Your task to perform on an android device: Search for Italian restaurants on Maps Image 0: 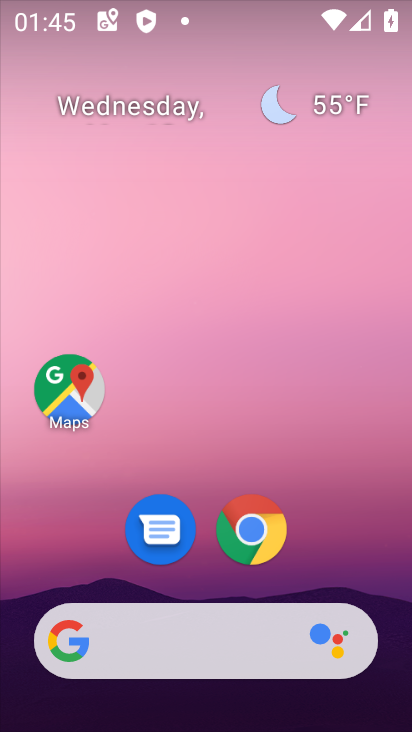
Step 0: drag from (237, 725) to (253, 272)
Your task to perform on an android device: Search for Italian restaurants on Maps Image 1: 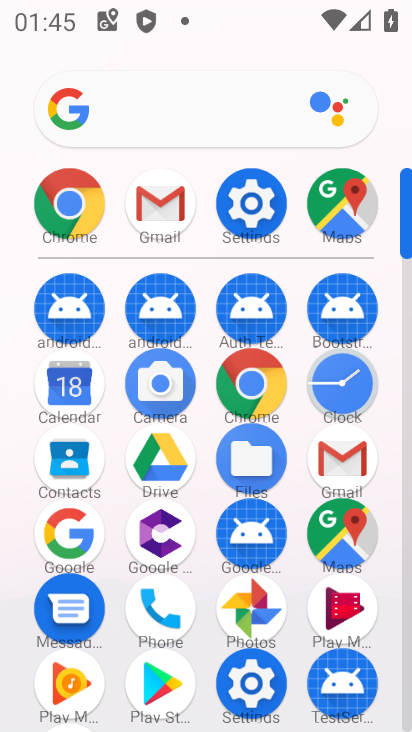
Step 1: click (343, 535)
Your task to perform on an android device: Search for Italian restaurants on Maps Image 2: 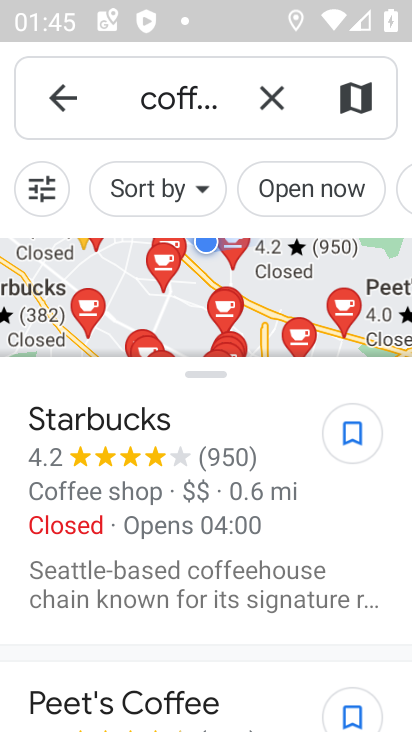
Step 2: click (271, 106)
Your task to perform on an android device: Search for Italian restaurants on Maps Image 3: 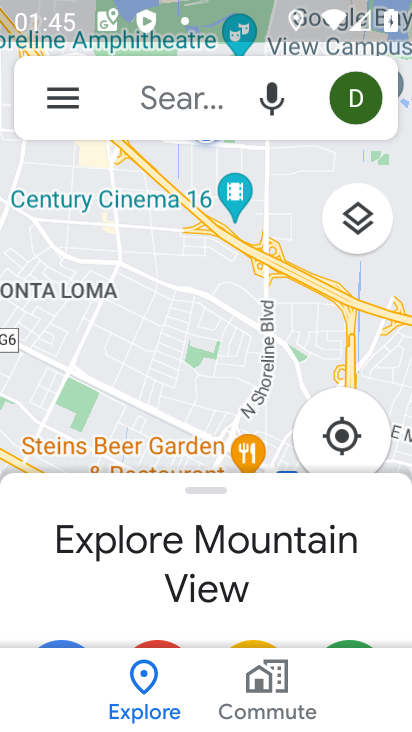
Step 3: type "italian restaurants"
Your task to perform on an android device: Search for Italian restaurants on Maps Image 4: 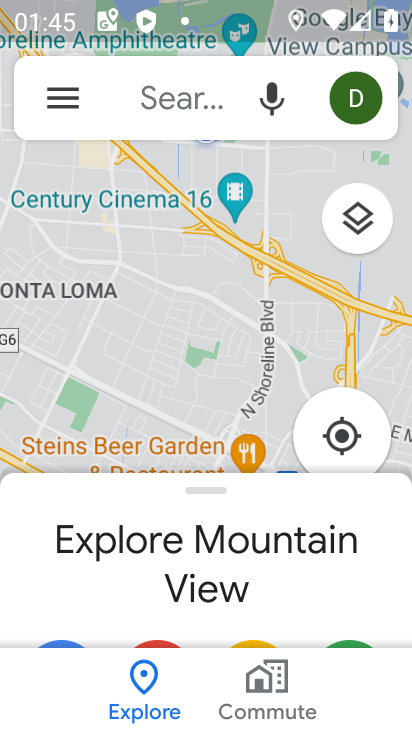
Step 4: click (155, 89)
Your task to perform on an android device: Search for Italian restaurants on Maps Image 5: 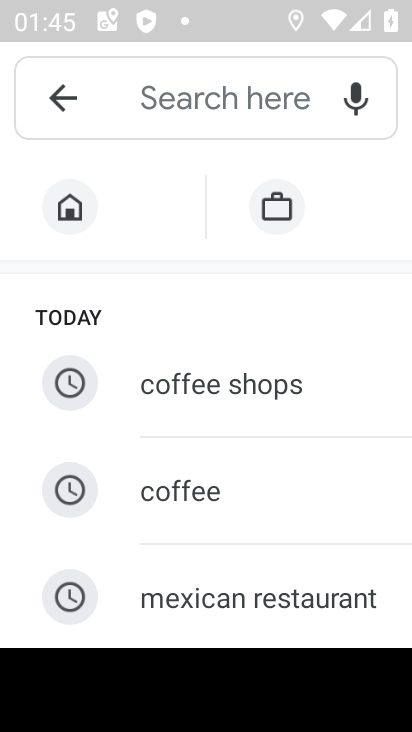
Step 5: type "italian restaurants"
Your task to perform on an android device: Search for Italian restaurants on Maps Image 6: 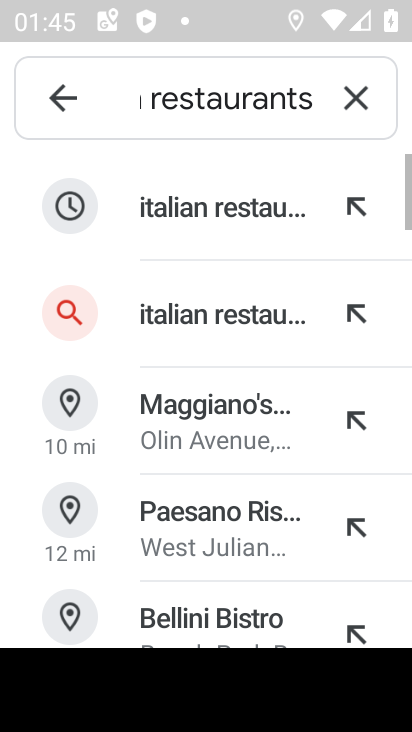
Step 6: click (164, 208)
Your task to perform on an android device: Search for Italian restaurants on Maps Image 7: 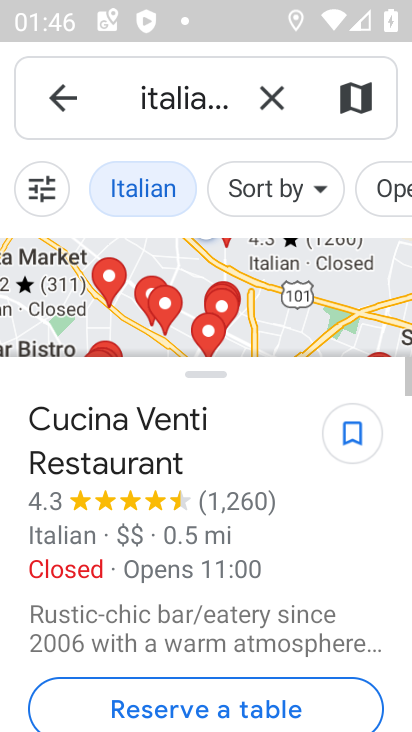
Step 7: task complete